Your task to perform on an android device: Open the phone app and click the voicemail tab. Image 0: 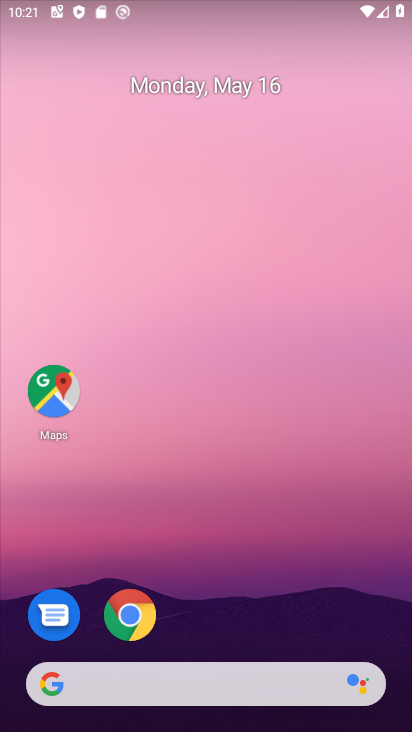
Step 0: drag from (254, 707) to (320, 233)
Your task to perform on an android device: Open the phone app and click the voicemail tab. Image 1: 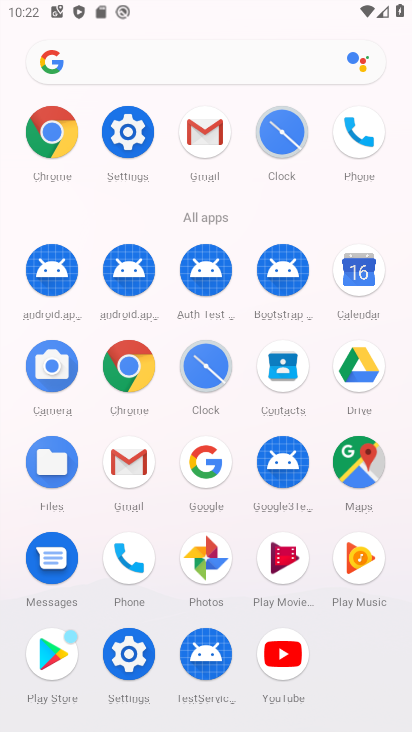
Step 1: click (132, 582)
Your task to perform on an android device: Open the phone app and click the voicemail tab. Image 2: 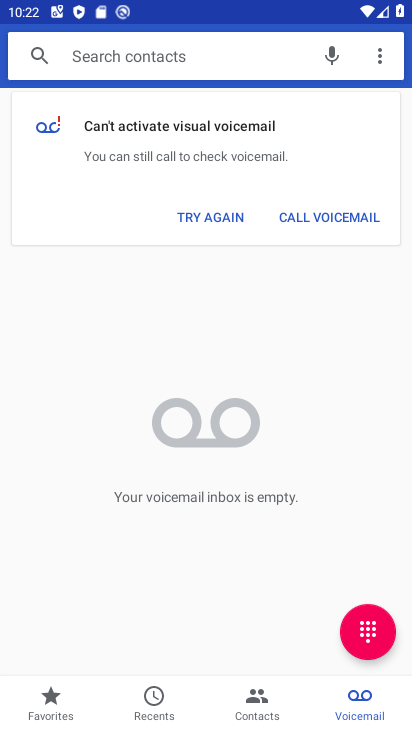
Step 2: click (336, 714)
Your task to perform on an android device: Open the phone app and click the voicemail tab. Image 3: 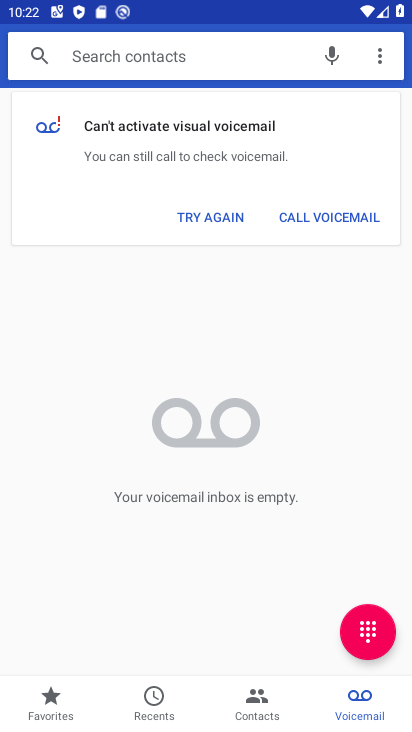
Step 3: task complete